Your task to perform on an android device: turn on location history Image 0: 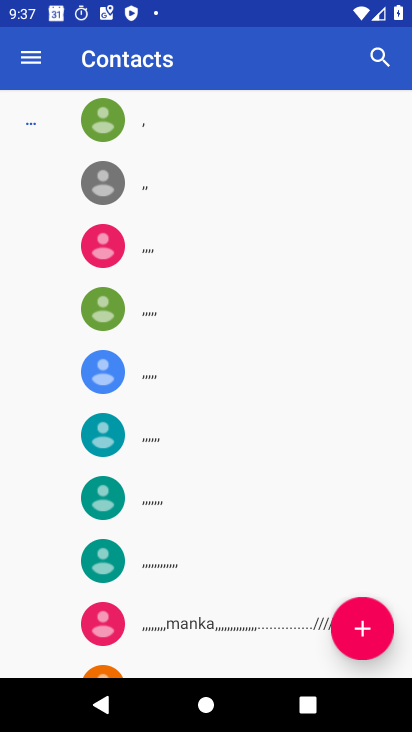
Step 0: press back button
Your task to perform on an android device: turn on location history Image 1: 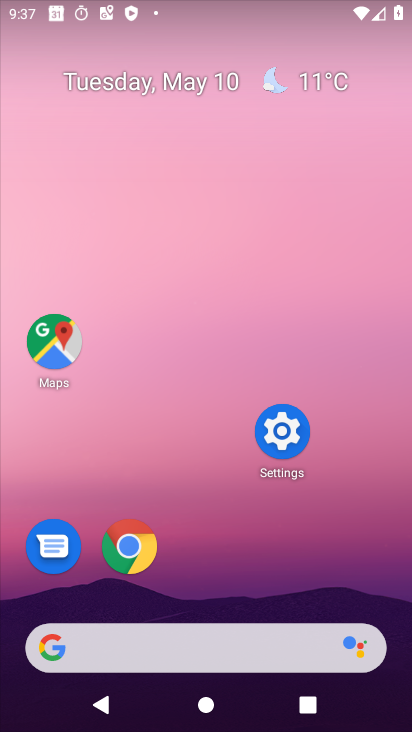
Step 1: click (279, 414)
Your task to perform on an android device: turn on location history Image 2: 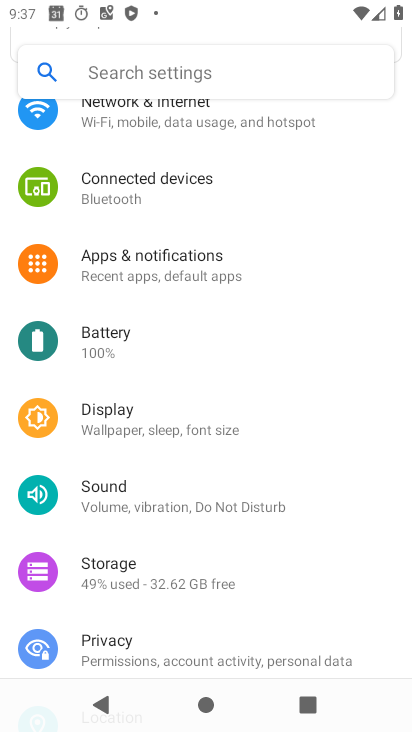
Step 2: drag from (175, 582) to (369, 73)
Your task to perform on an android device: turn on location history Image 3: 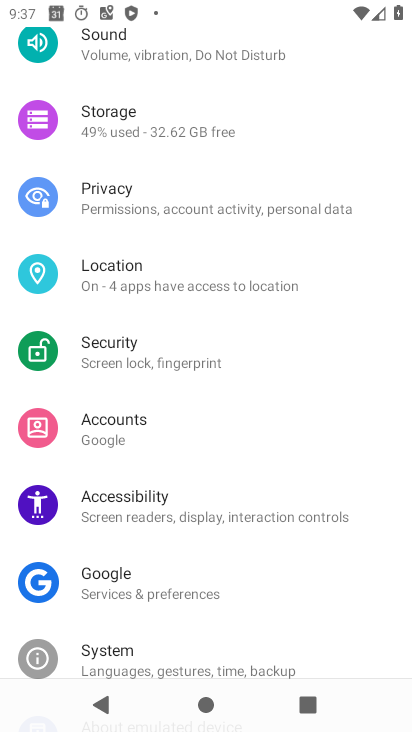
Step 3: click (129, 271)
Your task to perform on an android device: turn on location history Image 4: 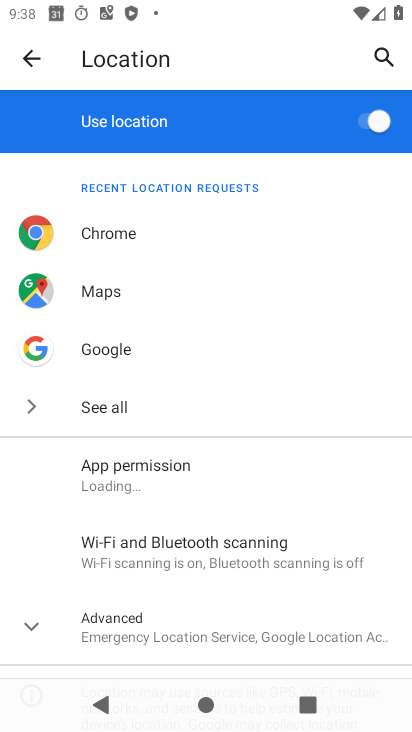
Step 4: click (129, 627)
Your task to perform on an android device: turn on location history Image 5: 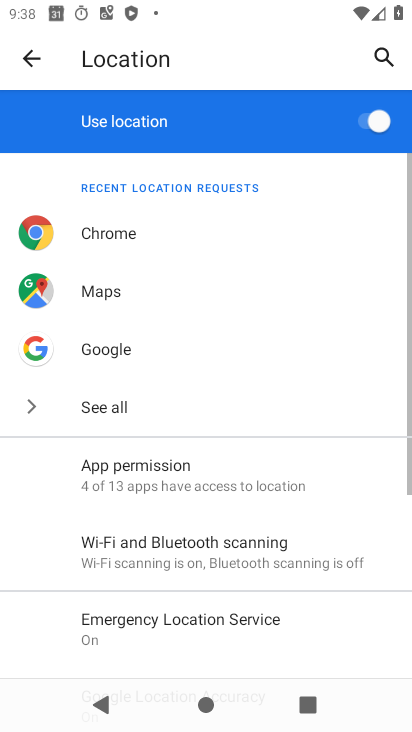
Step 5: drag from (155, 624) to (272, 301)
Your task to perform on an android device: turn on location history Image 6: 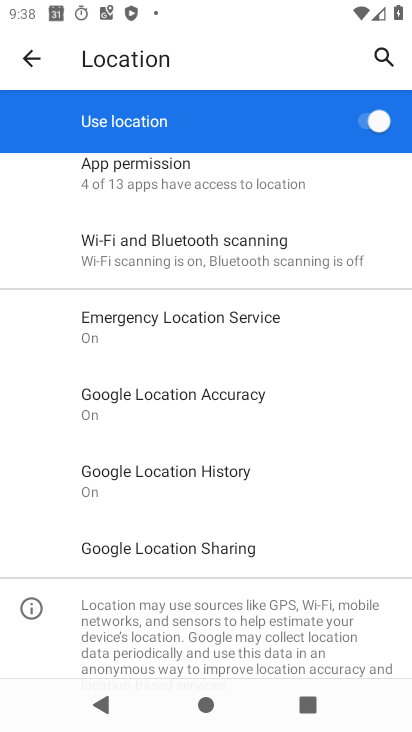
Step 6: click (139, 480)
Your task to perform on an android device: turn on location history Image 7: 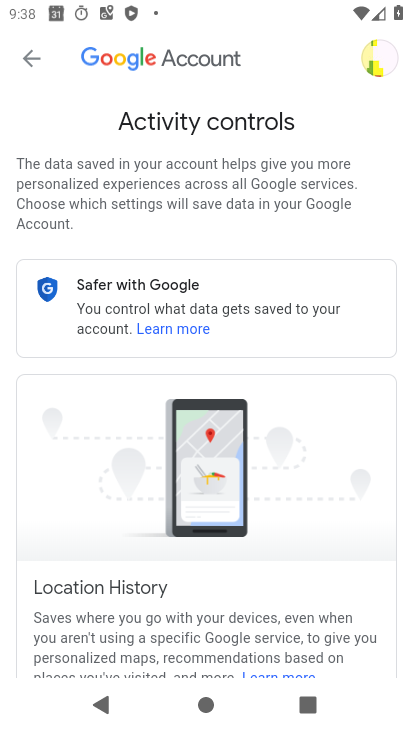
Step 7: task complete